Your task to perform on an android device: toggle notification dots Image 0: 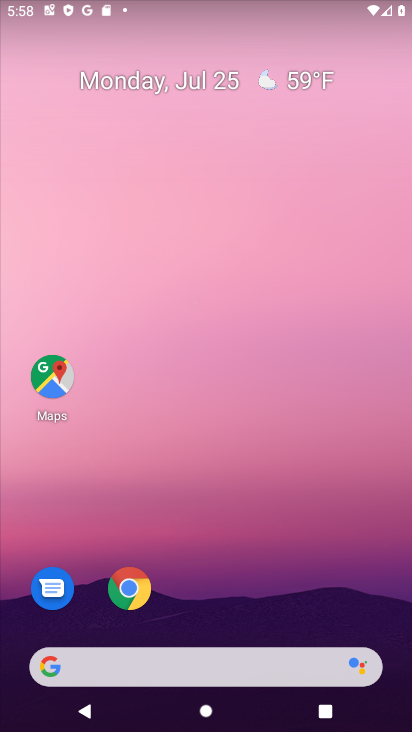
Step 0: drag from (297, 616) to (331, 354)
Your task to perform on an android device: toggle notification dots Image 1: 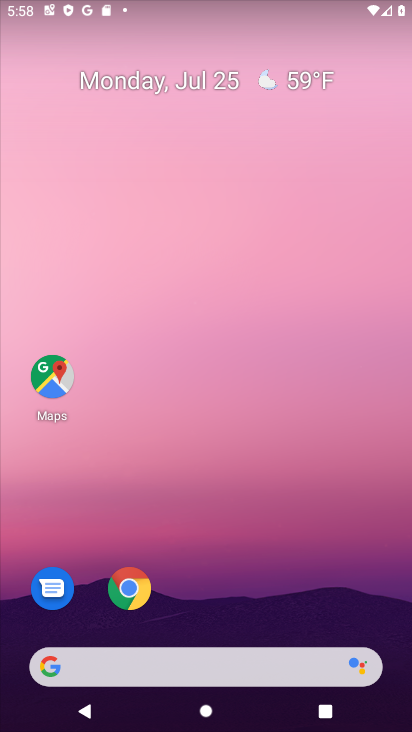
Step 1: drag from (303, 524) to (290, 74)
Your task to perform on an android device: toggle notification dots Image 2: 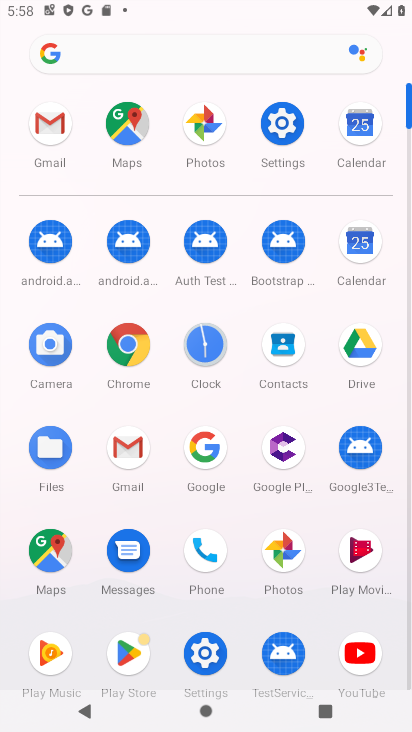
Step 2: click (283, 131)
Your task to perform on an android device: toggle notification dots Image 3: 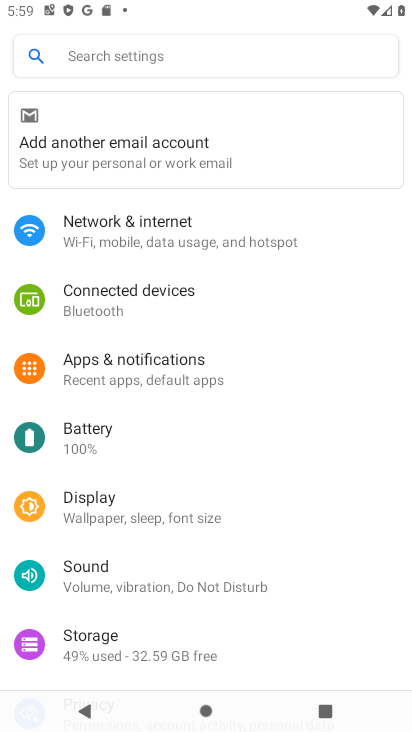
Step 3: task complete